Your task to perform on an android device: View the shopping cart on bestbuy. Add "apple airpods pro" to the cart on bestbuy Image 0: 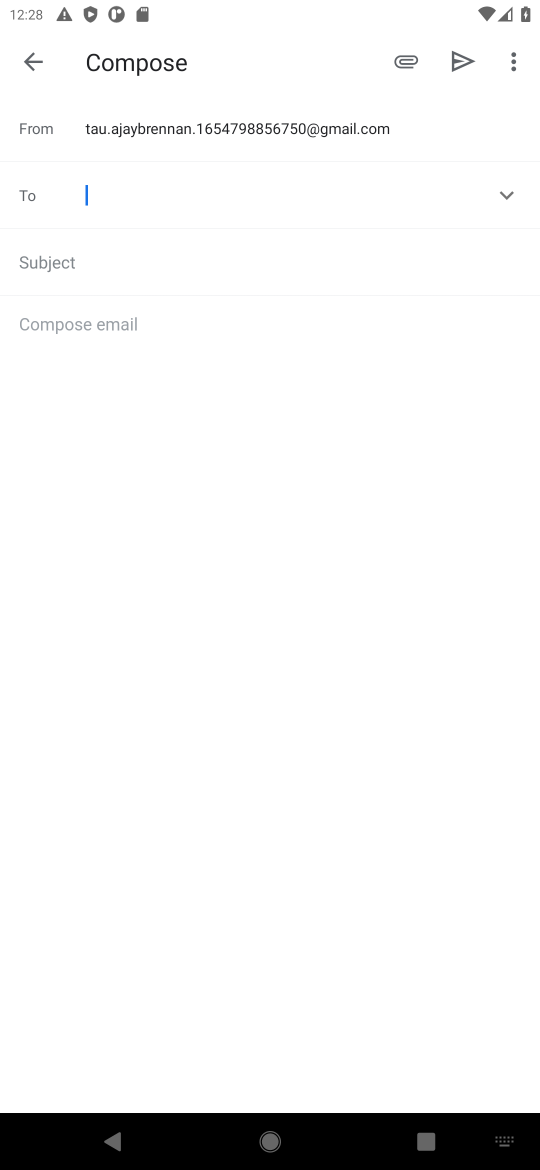
Step 0: press home button
Your task to perform on an android device: View the shopping cart on bestbuy. Add "apple airpods pro" to the cart on bestbuy Image 1: 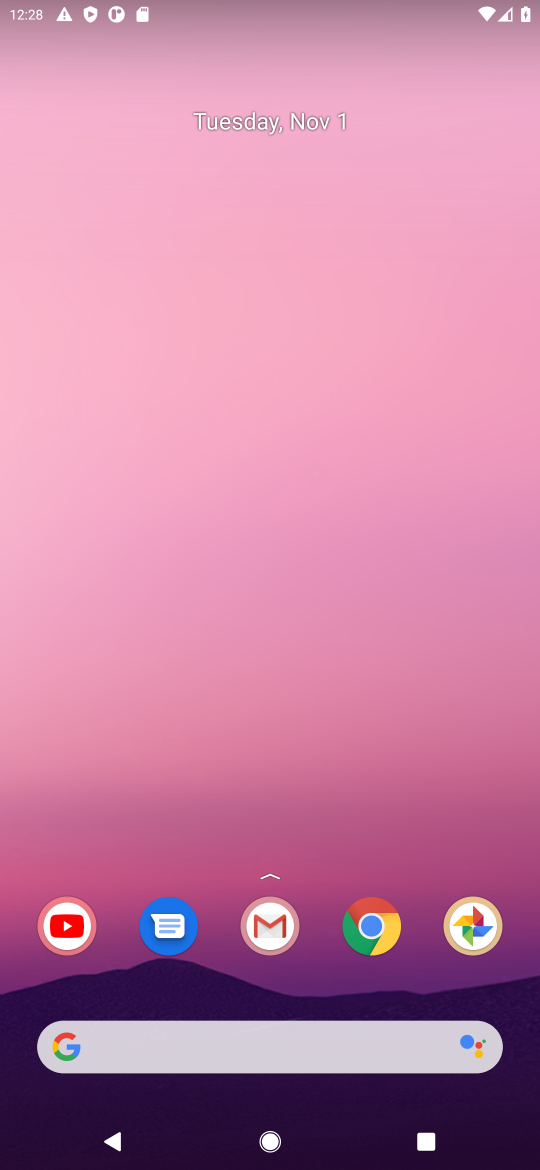
Step 1: click (375, 937)
Your task to perform on an android device: View the shopping cart on bestbuy. Add "apple airpods pro" to the cart on bestbuy Image 2: 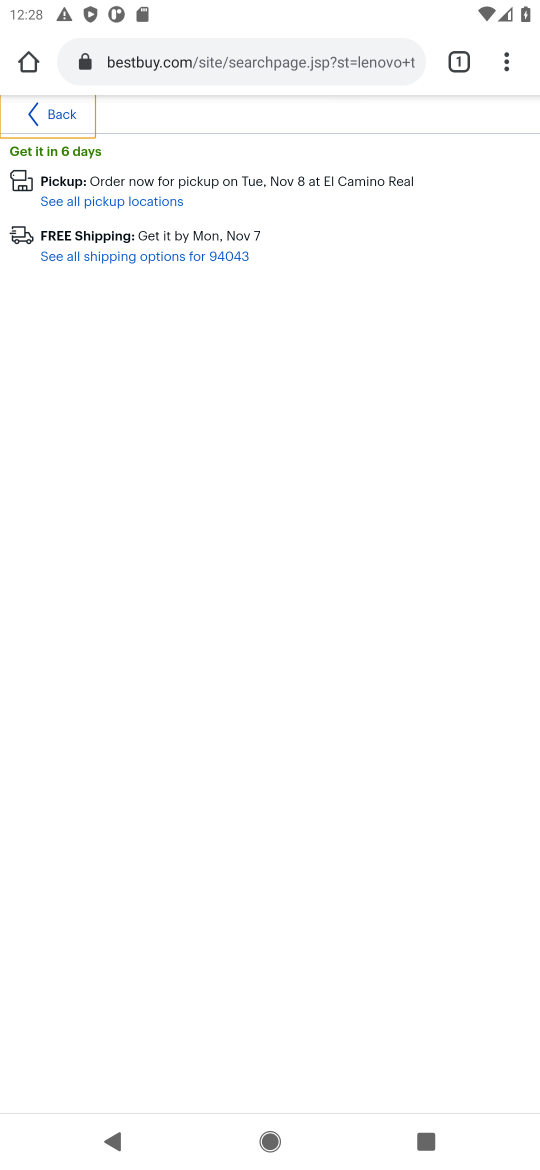
Step 2: click (214, 71)
Your task to perform on an android device: View the shopping cart on bestbuy. Add "apple airpods pro" to the cart on bestbuy Image 3: 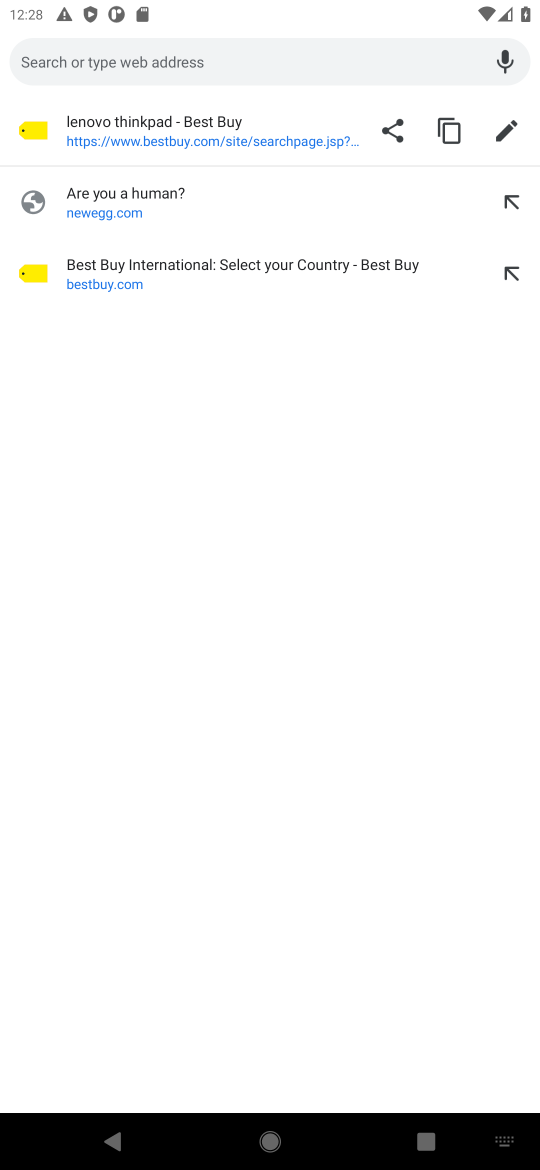
Step 3: type "bestbuy"
Your task to perform on an android device: View the shopping cart on bestbuy. Add "apple airpods pro" to the cart on bestbuy Image 4: 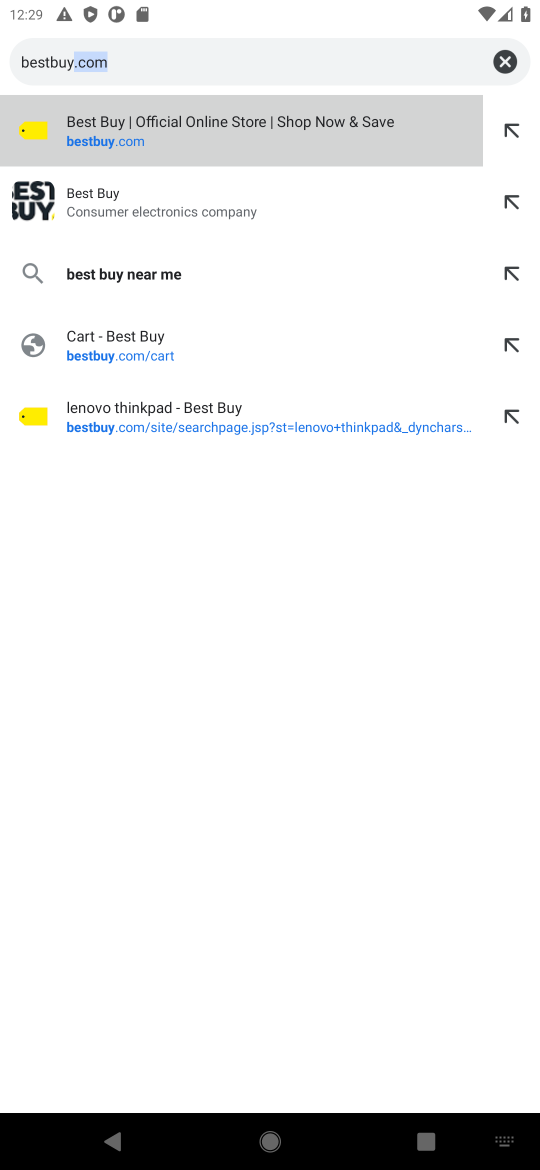
Step 4: press enter
Your task to perform on an android device: View the shopping cart on bestbuy. Add "apple airpods pro" to the cart on bestbuy Image 5: 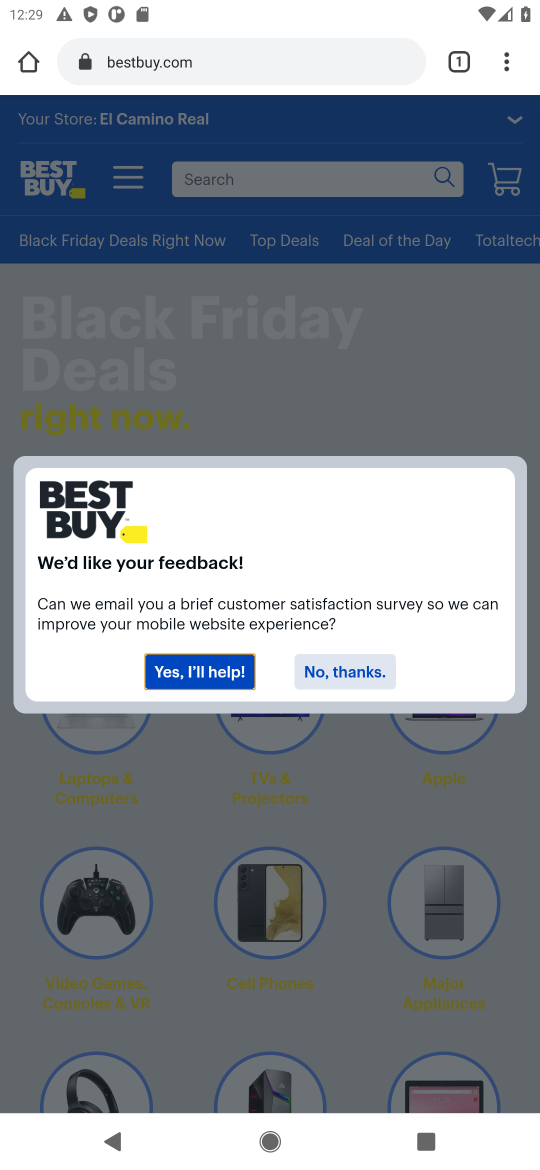
Step 5: click (337, 673)
Your task to perform on an android device: View the shopping cart on bestbuy. Add "apple airpods pro" to the cart on bestbuy Image 6: 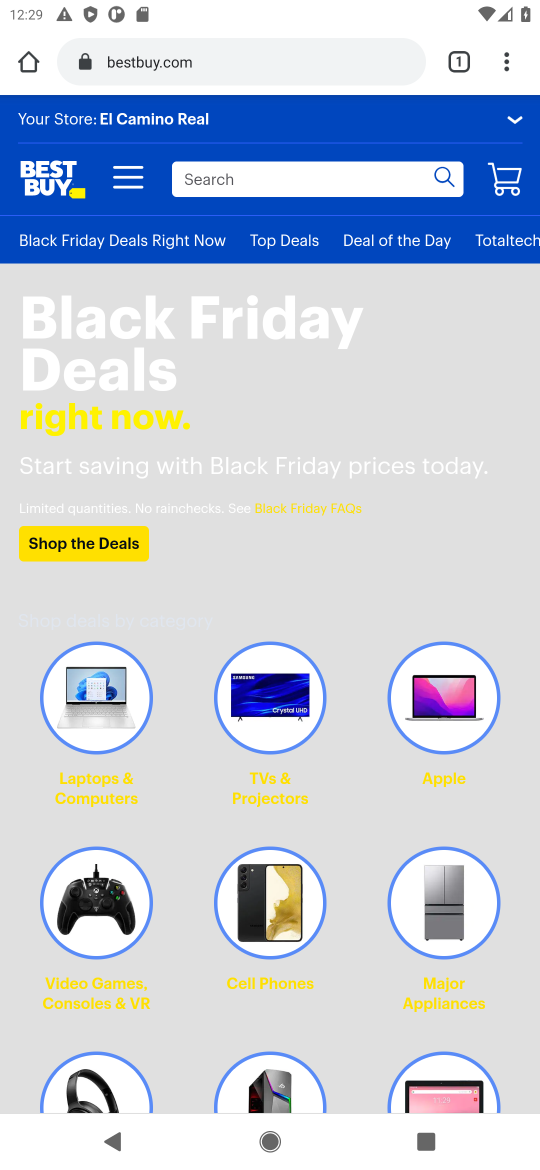
Step 6: click (247, 178)
Your task to perform on an android device: View the shopping cart on bestbuy. Add "apple airpods pro" to the cart on bestbuy Image 7: 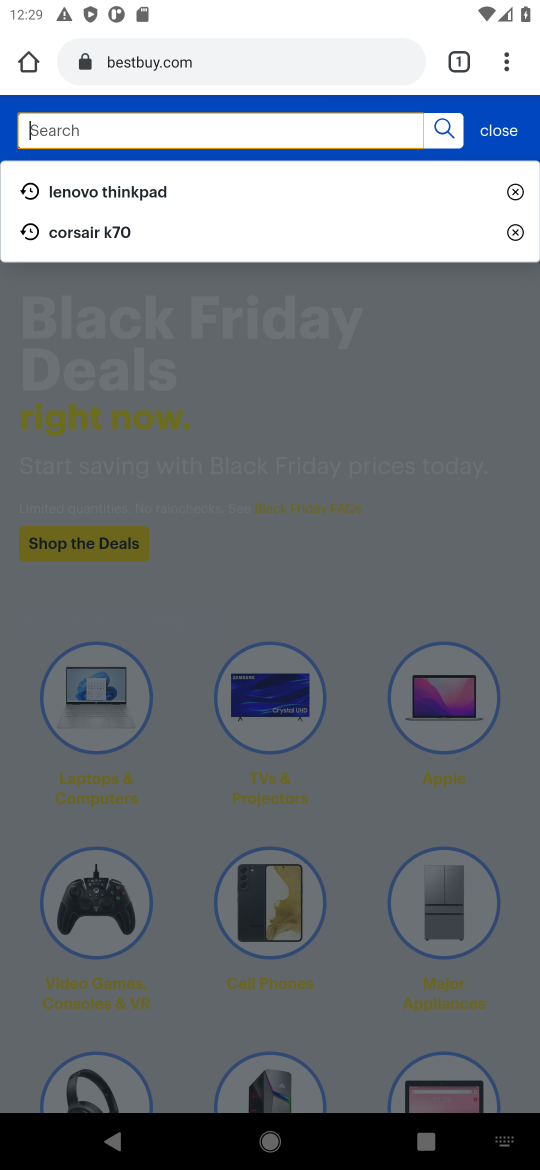
Step 7: click (494, 130)
Your task to perform on an android device: View the shopping cart on bestbuy. Add "apple airpods pro" to the cart on bestbuy Image 8: 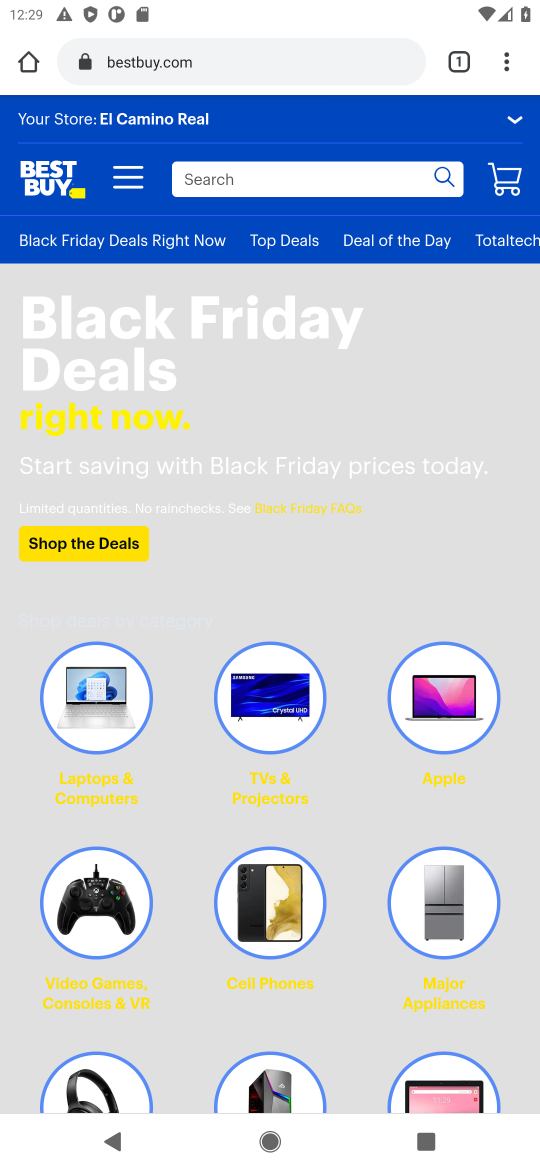
Step 8: click (512, 178)
Your task to perform on an android device: View the shopping cart on bestbuy. Add "apple airpods pro" to the cart on bestbuy Image 9: 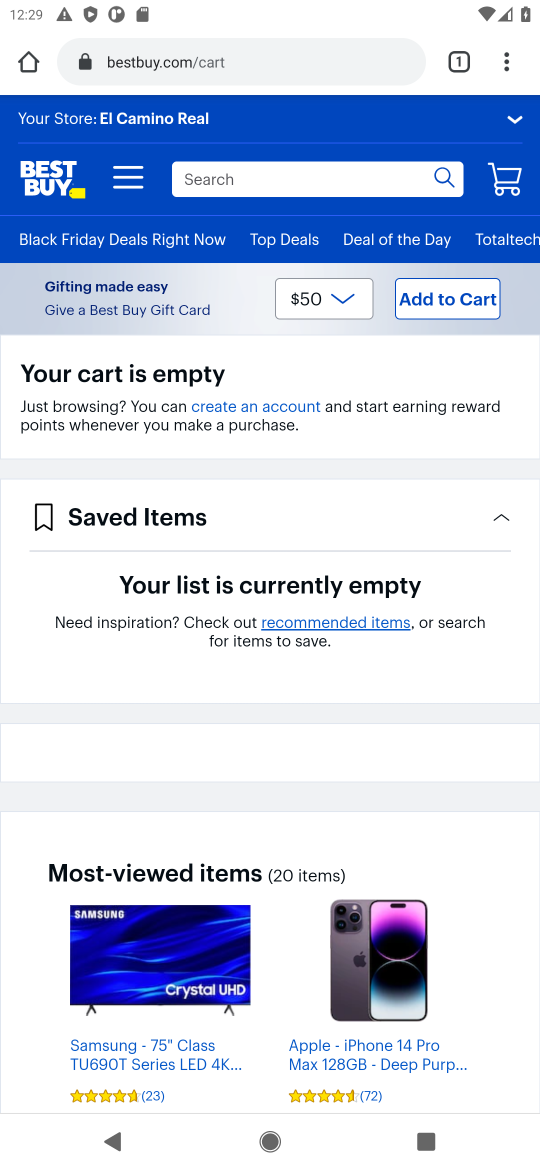
Step 9: click (304, 192)
Your task to perform on an android device: View the shopping cart on bestbuy. Add "apple airpods pro" to the cart on bestbuy Image 10: 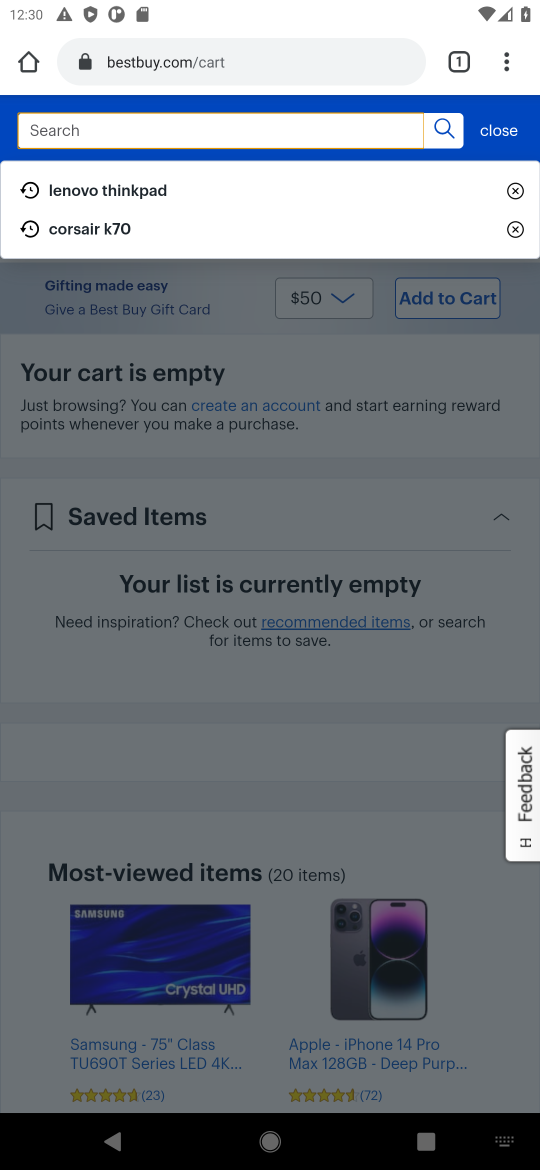
Step 10: type "apple airpods pro"
Your task to perform on an android device: View the shopping cart on bestbuy. Add "apple airpods pro" to the cart on bestbuy Image 11: 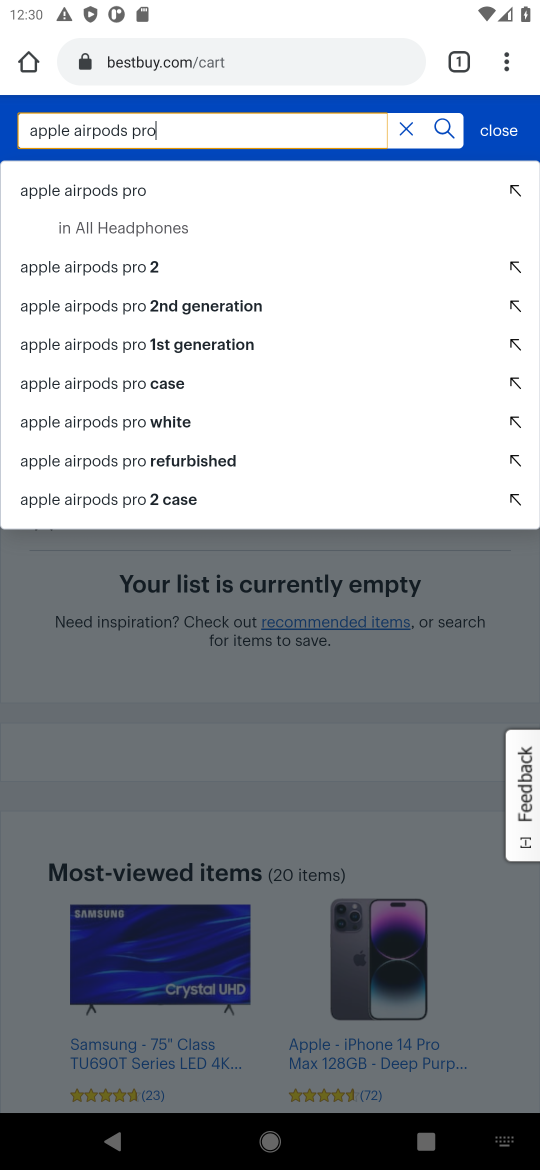
Step 11: click (123, 188)
Your task to perform on an android device: View the shopping cart on bestbuy. Add "apple airpods pro" to the cart on bestbuy Image 12: 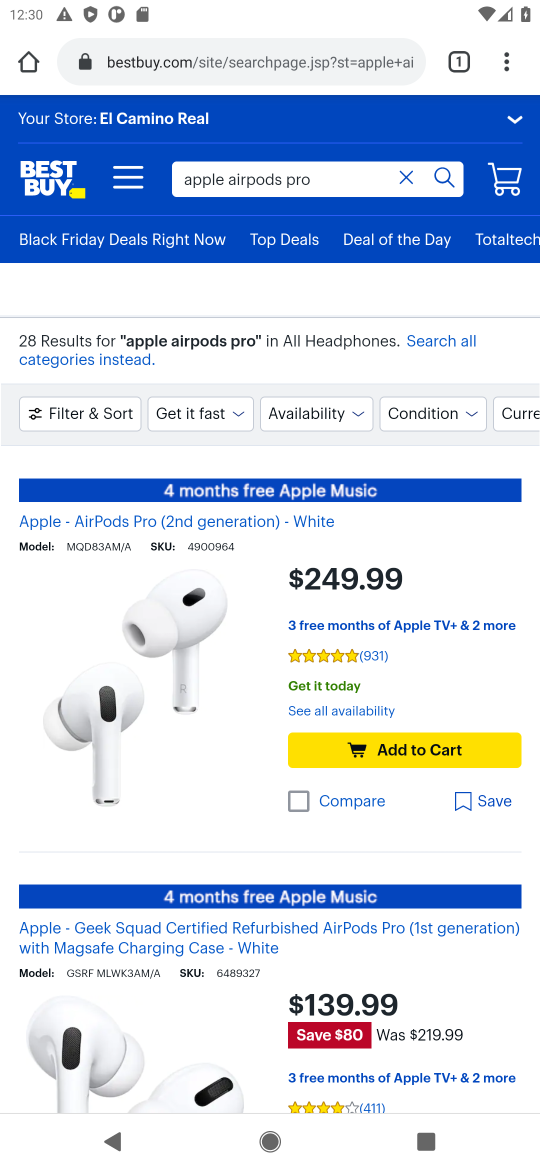
Step 12: click (404, 747)
Your task to perform on an android device: View the shopping cart on bestbuy. Add "apple airpods pro" to the cart on bestbuy Image 13: 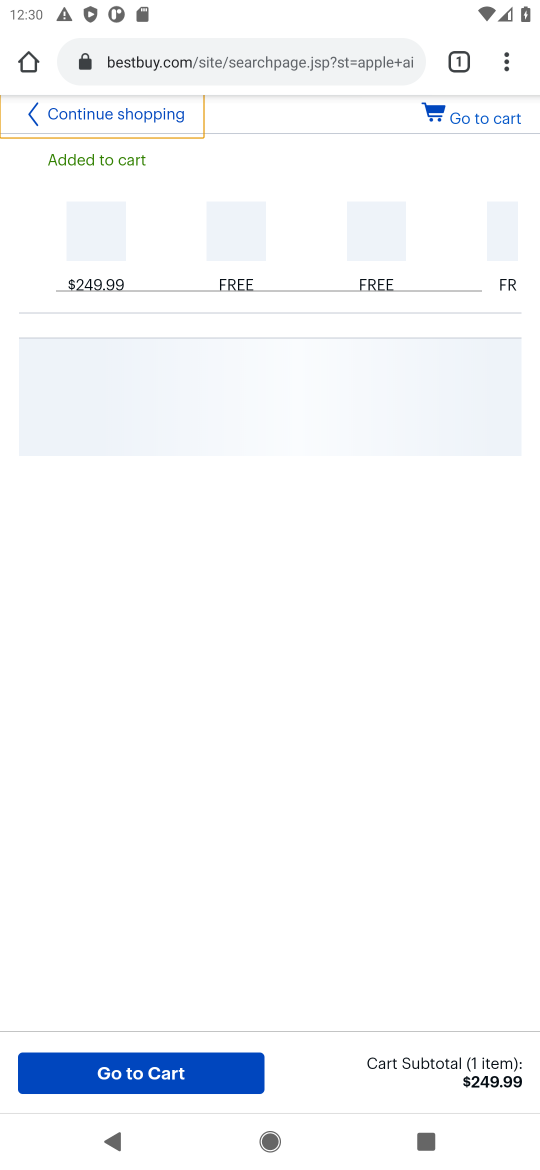
Step 13: task complete